Your task to perform on an android device: Go to CNN.com Image 0: 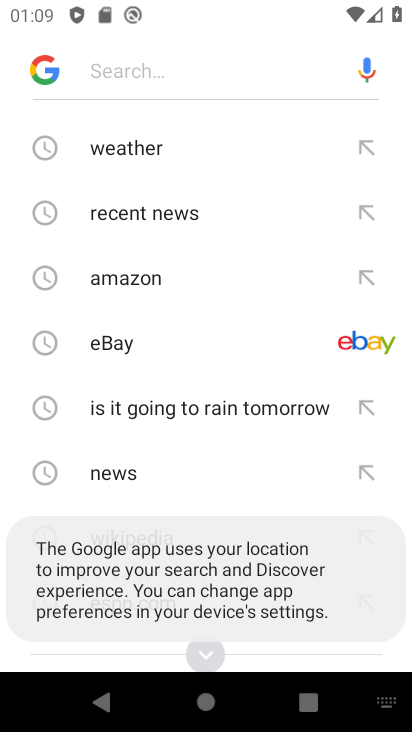
Step 0: drag from (218, 361) to (254, 189)
Your task to perform on an android device: Go to CNN.com Image 1: 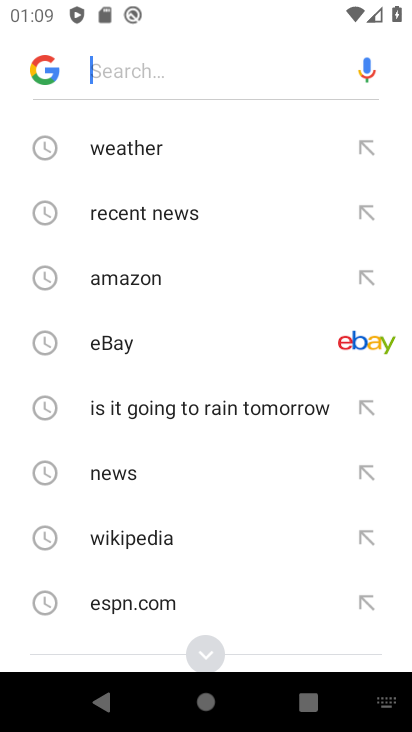
Step 1: drag from (186, 481) to (262, 142)
Your task to perform on an android device: Go to CNN.com Image 2: 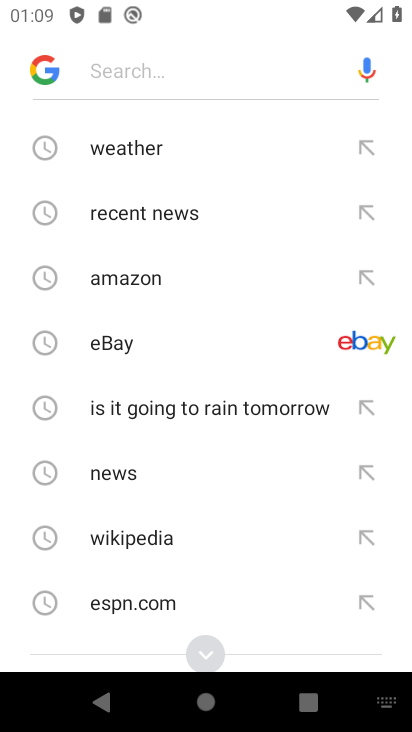
Step 2: drag from (153, 338) to (270, 46)
Your task to perform on an android device: Go to CNN.com Image 3: 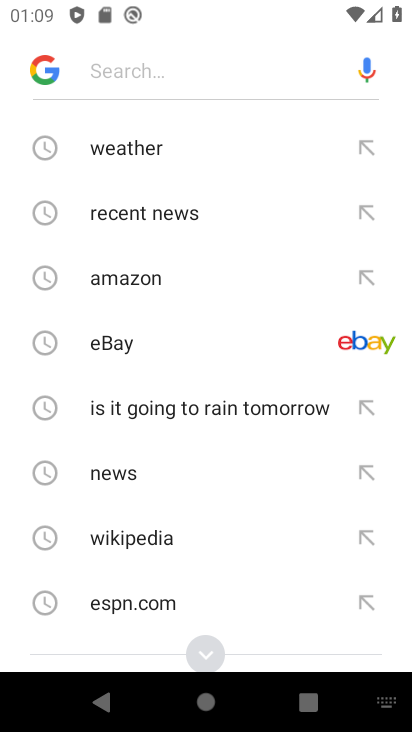
Step 3: click (122, 42)
Your task to perform on an android device: Go to CNN.com Image 4: 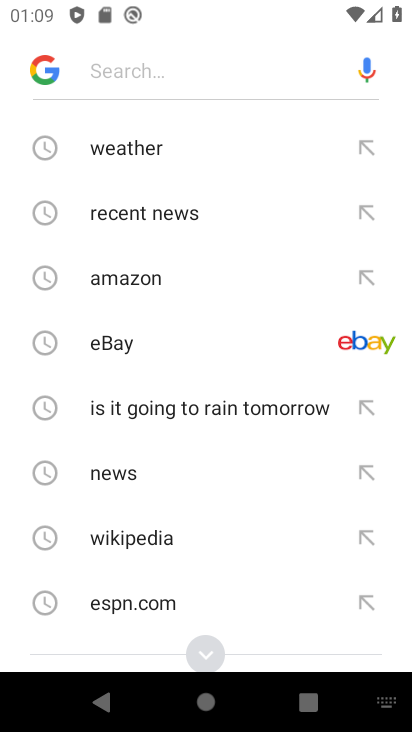
Step 4: type "cnn.com"
Your task to perform on an android device: Go to CNN.com Image 5: 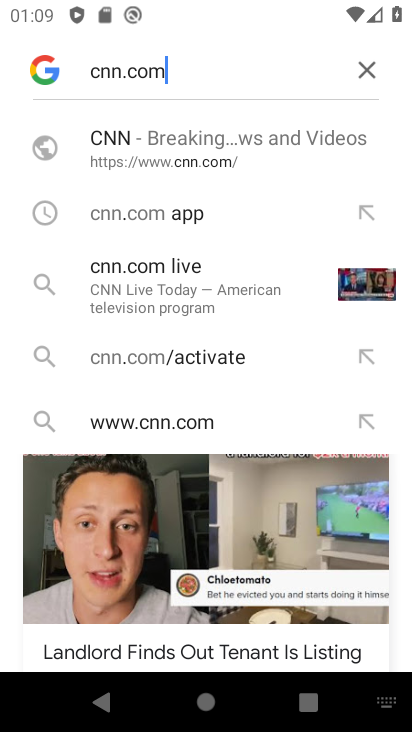
Step 5: click (143, 150)
Your task to perform on an android device: Go to CNN.com Image 6: 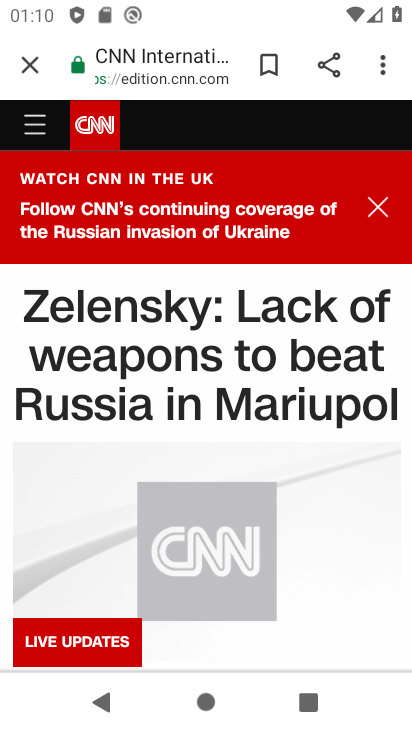
Step 6: task complete